Your task to perform on an android device: Turn off the flashlight Image 0: 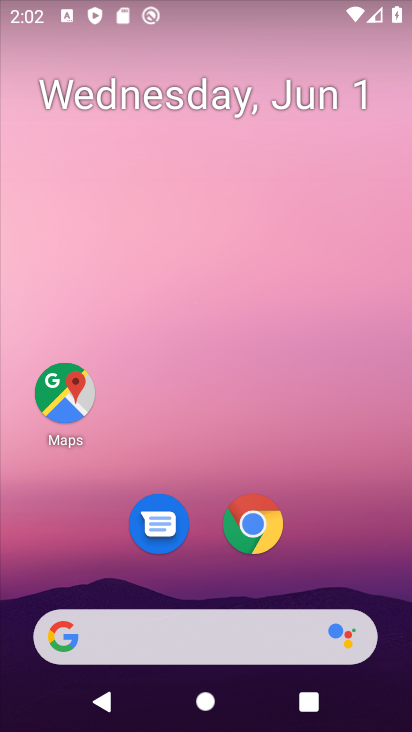
Step 0: drag from (296, 518) to (299, 33)
Your task to perform on an android device: Turn off the flashlight Image 1: 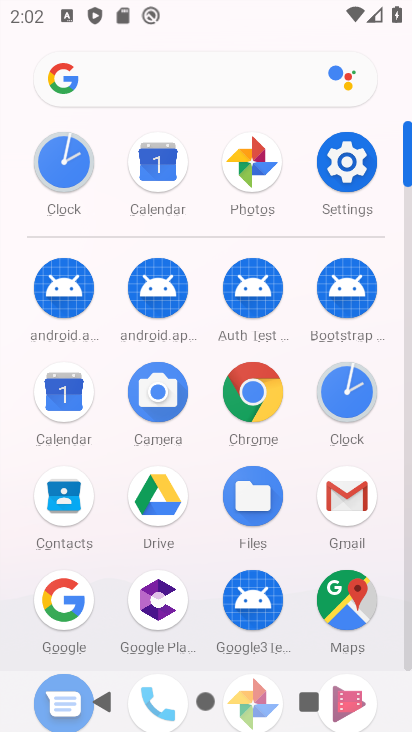
Step 1: click (340, 151)
Your task to perform on an android device: Turn off the flashlight Image 2: 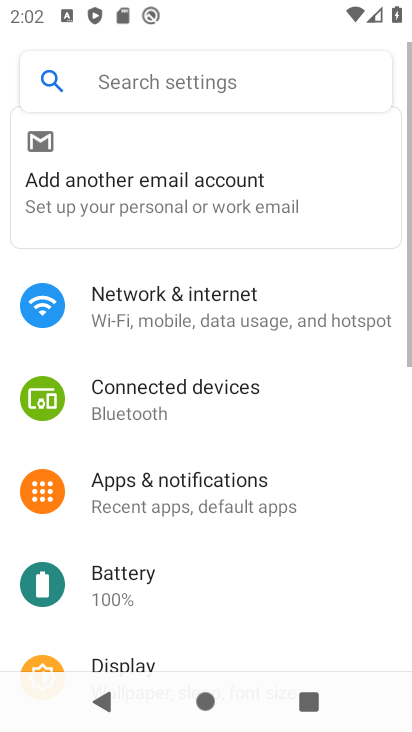
Step 2: click (250, 243)
Your task to perform on an android device: Turn off the flashlight Image 3: 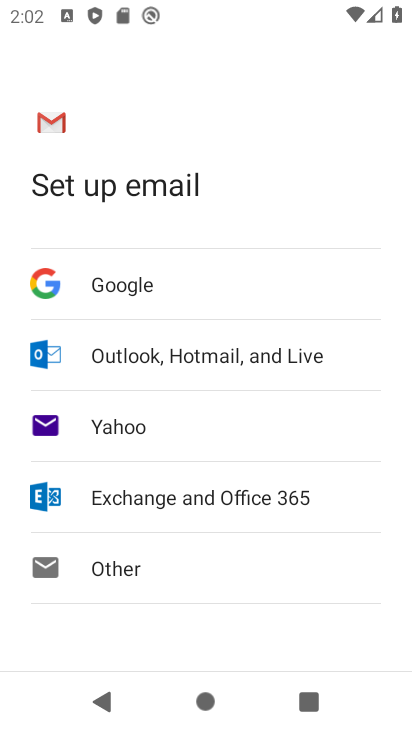
Step 3: press back button
Your task to perform on an android device: Turn off the flashlight Image 4: 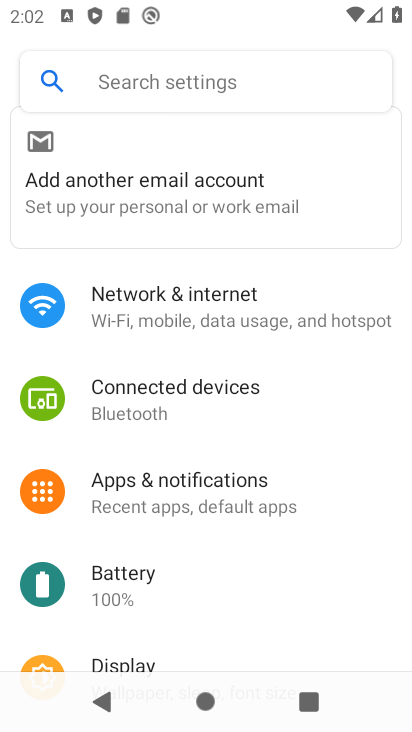
Step 4: click (279, 69)
Your task to perform on an android device: Turn off the flashlight Image 5: 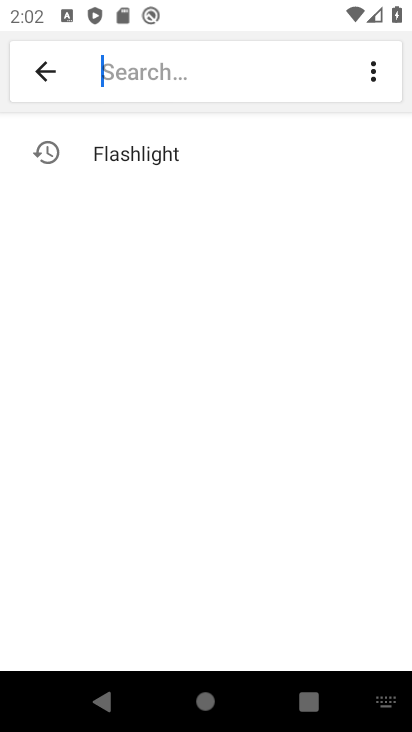
Step 5: click (173, 138)
Your task to perform on an android device: Turn off the flashlight Image 6: 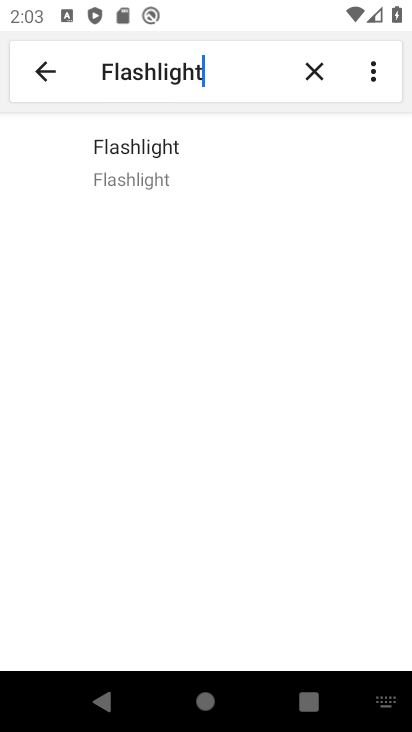
Step 6: click (139, 172)
Your task to perform on an android device: Turn off the flashlight Image 7: 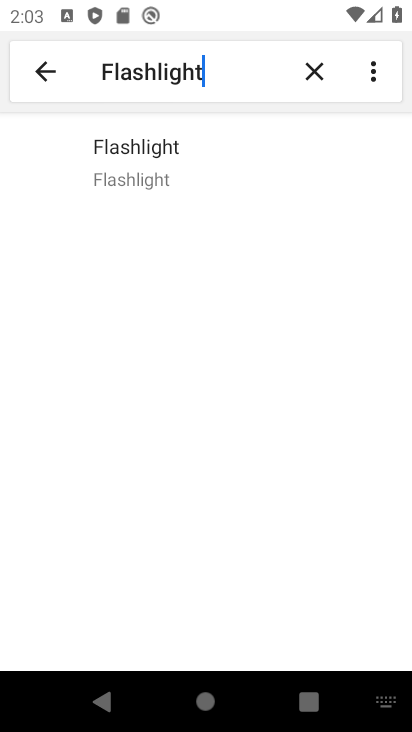
Step 7: task complete